Your task to perform on an android device: see creations saved in the google photos Image 0: 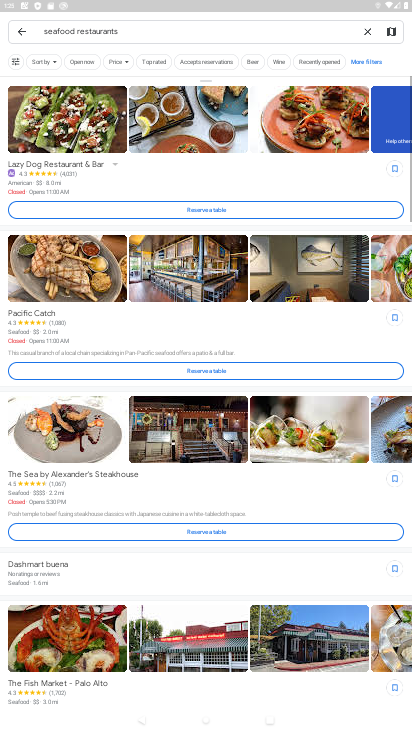
Step 0: press home button
Your task to perform on an android device: see creations saved in the google photos Image 1: 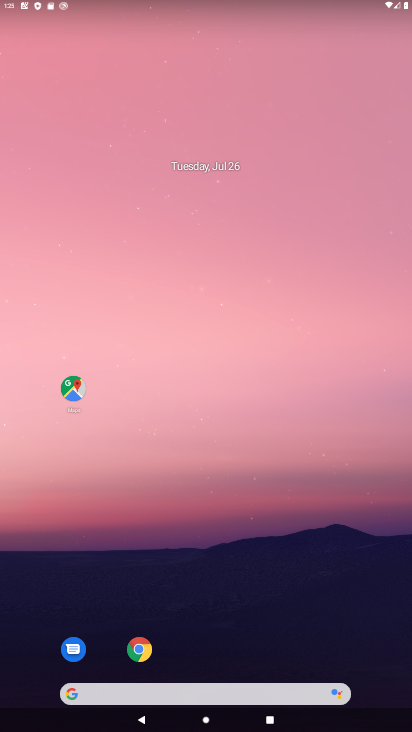
Step 1: drag from (241, 661) to (272, 52)
Your task to perform on an android device: see creations saved in the google photos Image 2: 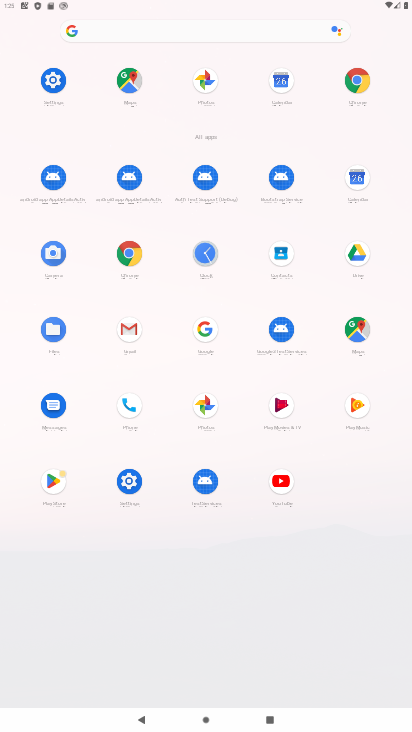
Step 2: click (203, 399)
Your task to perform on an android device: see creations saved in the google photos Image 3: 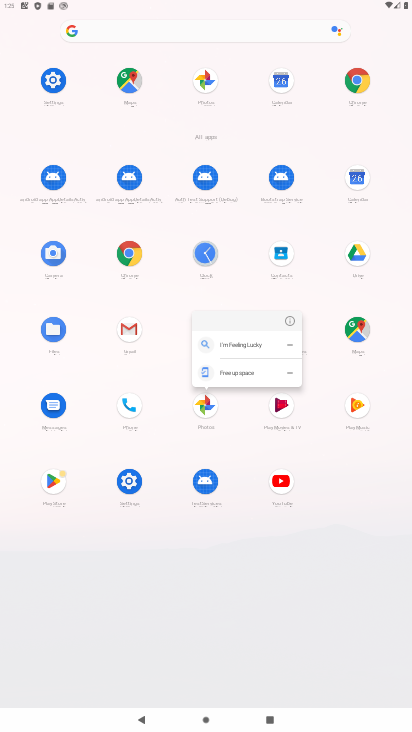
Step 3: click (203, 400)
Your task to perform on an android device: see creations saved in the google photos Image 4: 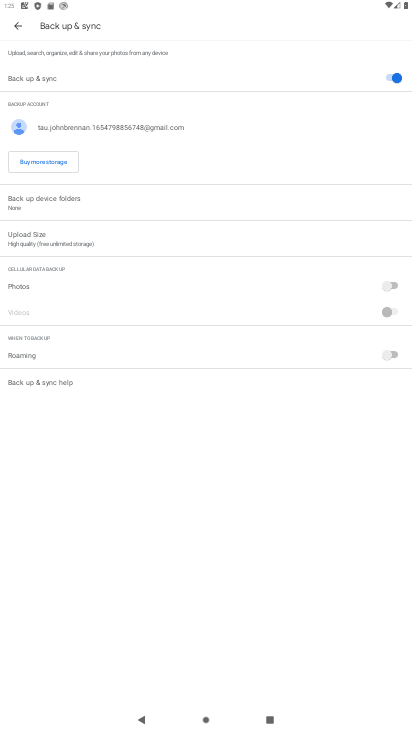
Step 4: click (15, 19)
Your task to perform on an android device: see creations saved in the google photos Image 5: 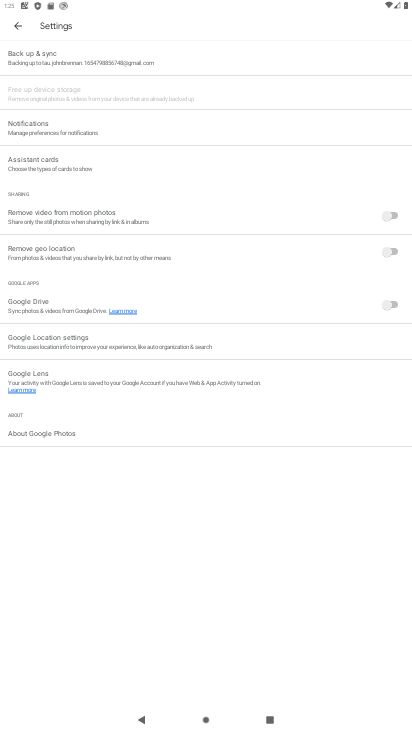
Step 5: click (22, 22)
Your task to perform on an android device: see creations saved in the google photos Image 6: 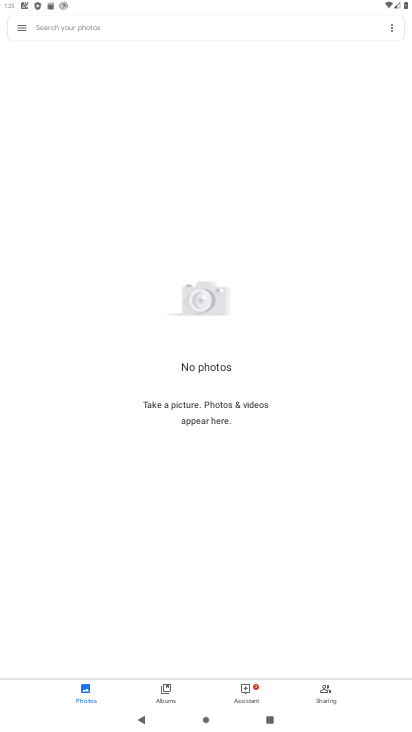
Step 6: click (106, 26)
Your task to perform on an android device: see creations saved in the google photos Image 7: 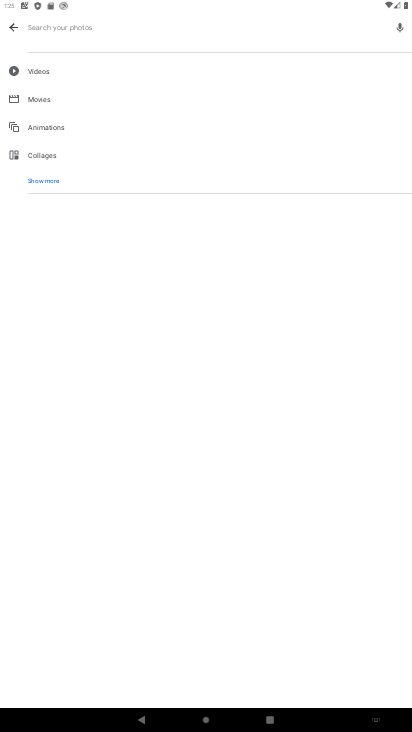
Step 7: click (51, 175)
Your task to perform on an android device: see creations saved in the google photos Image 8: 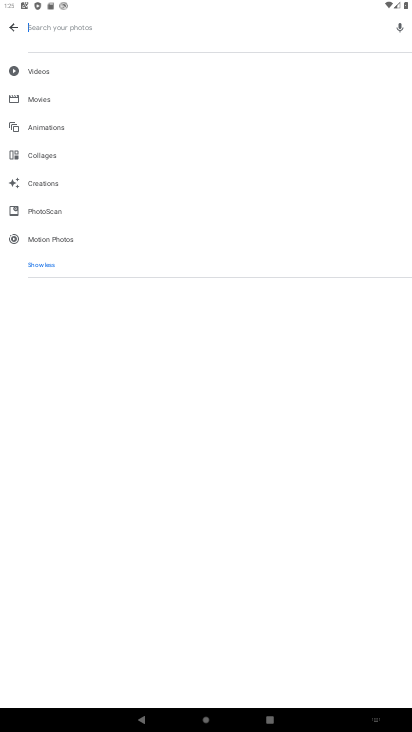
Step 8: click (43, 184)
Your task to perform on an android device: see creations saved in the google photos Image 9: 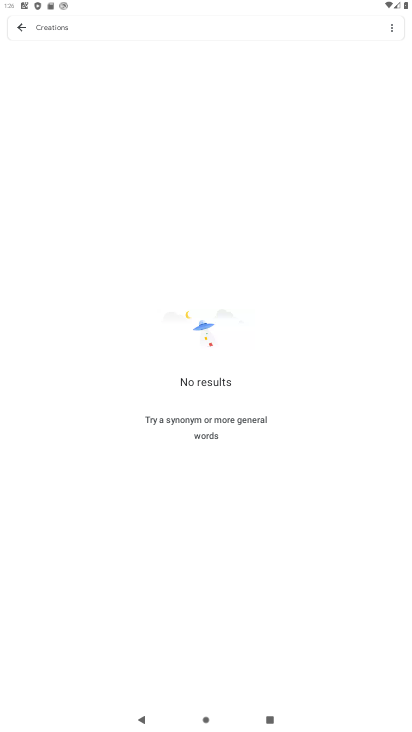
Step 9: task complete